Your task to perform on an android device: open app "DoorDash - Dasher" (install if not already installed) Image 0: 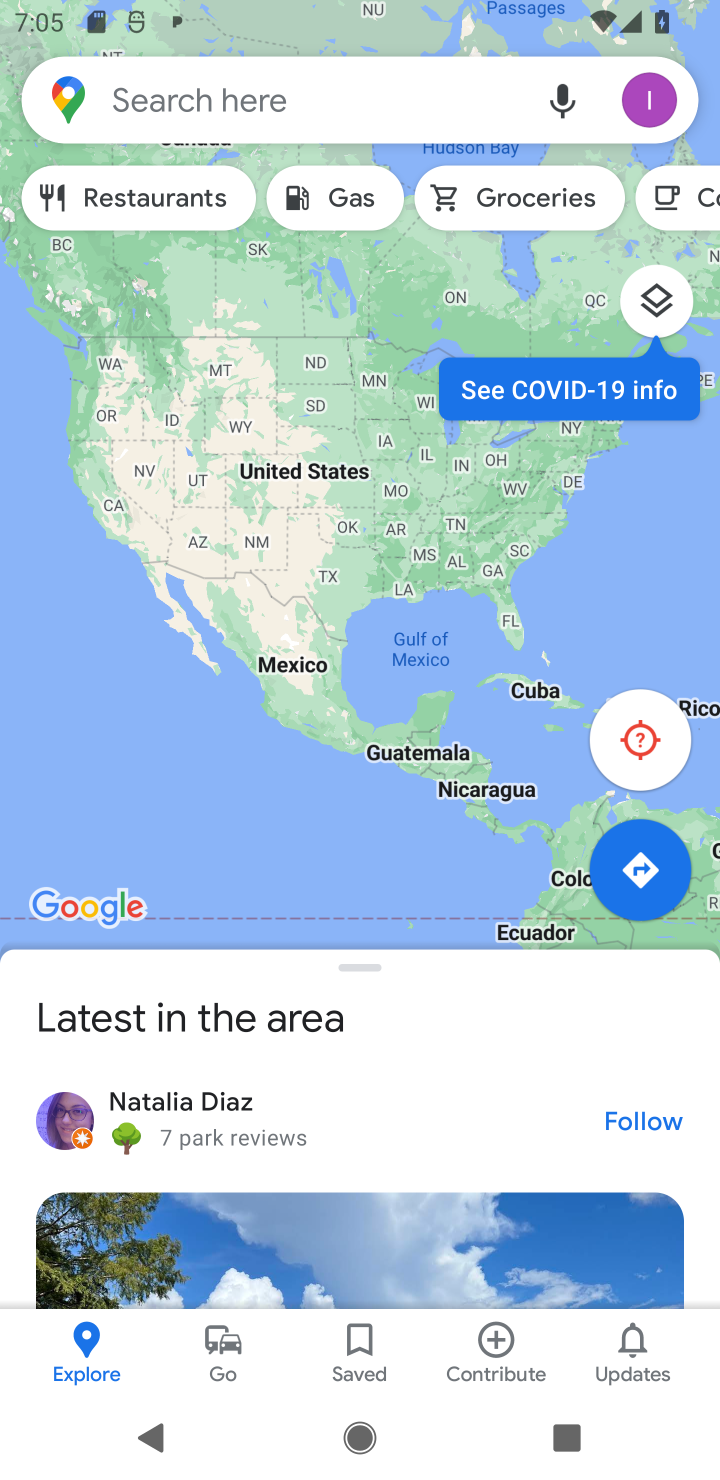
Step 0: press home button
Your task to perform on an android device: open app "DoorDash - Dasher" (install if not already installed) Image 1: 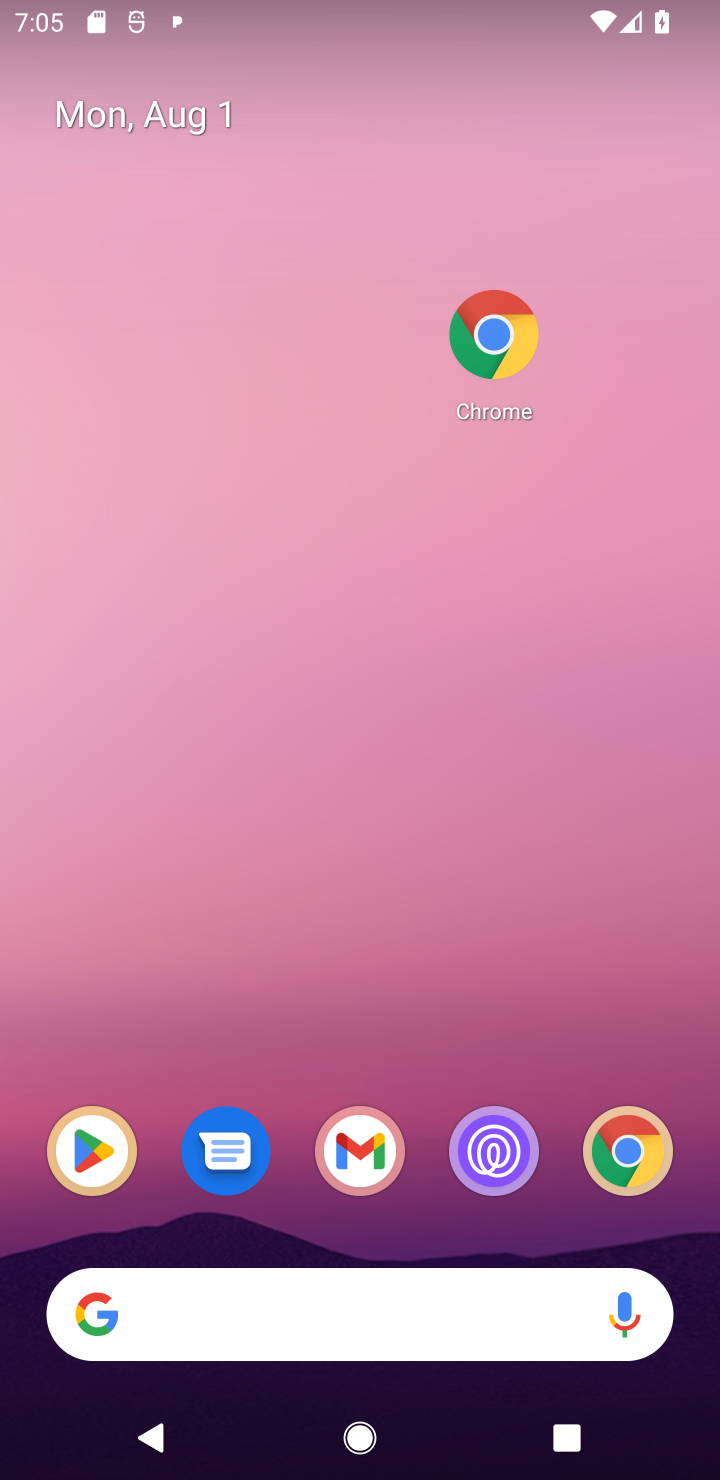
Step 1: click (79, 1167)
Your task to perform on an android device: open app "DoorDash - Dasher" (install if not already installed) Image 2: 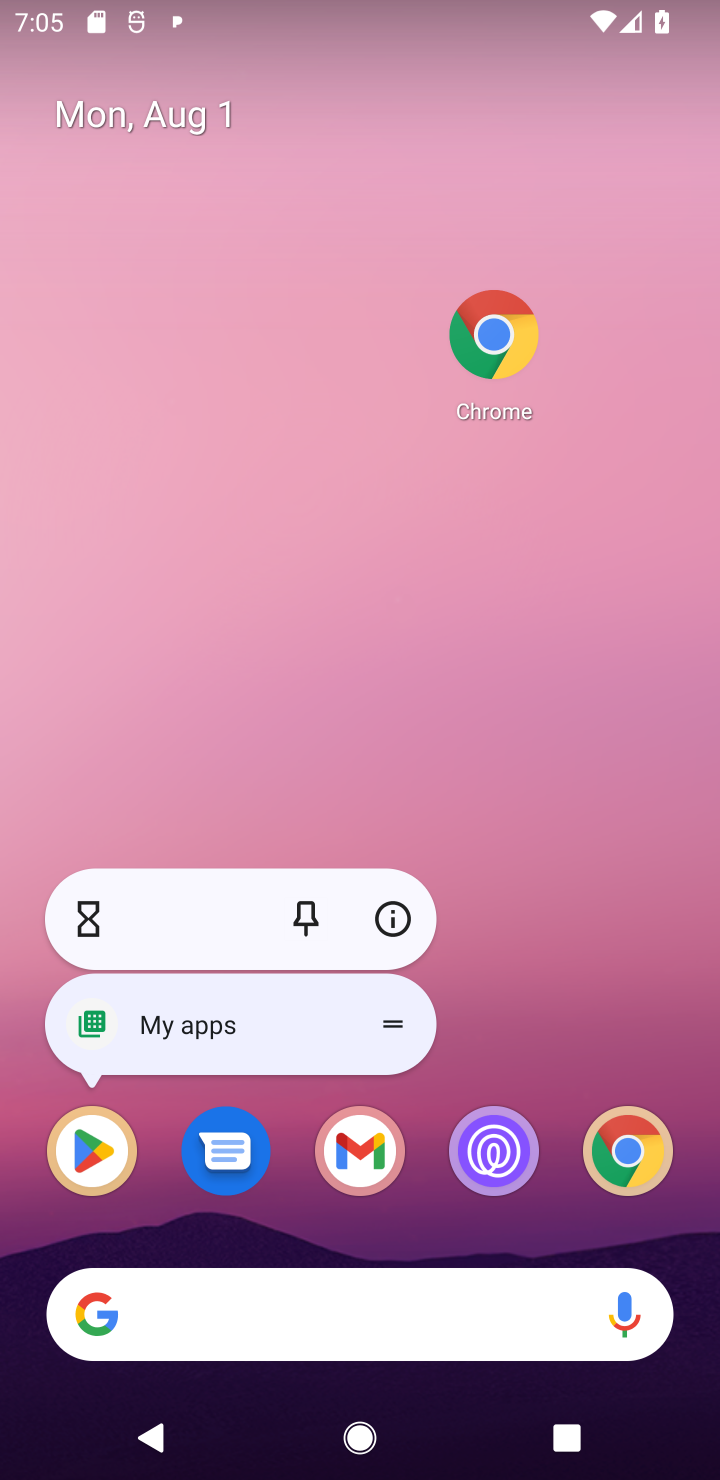
Step 2: click (79, 1167)
Your task to perform on an android device: open app "DoorDash - Dasher" (install if not already installed) Image 3: 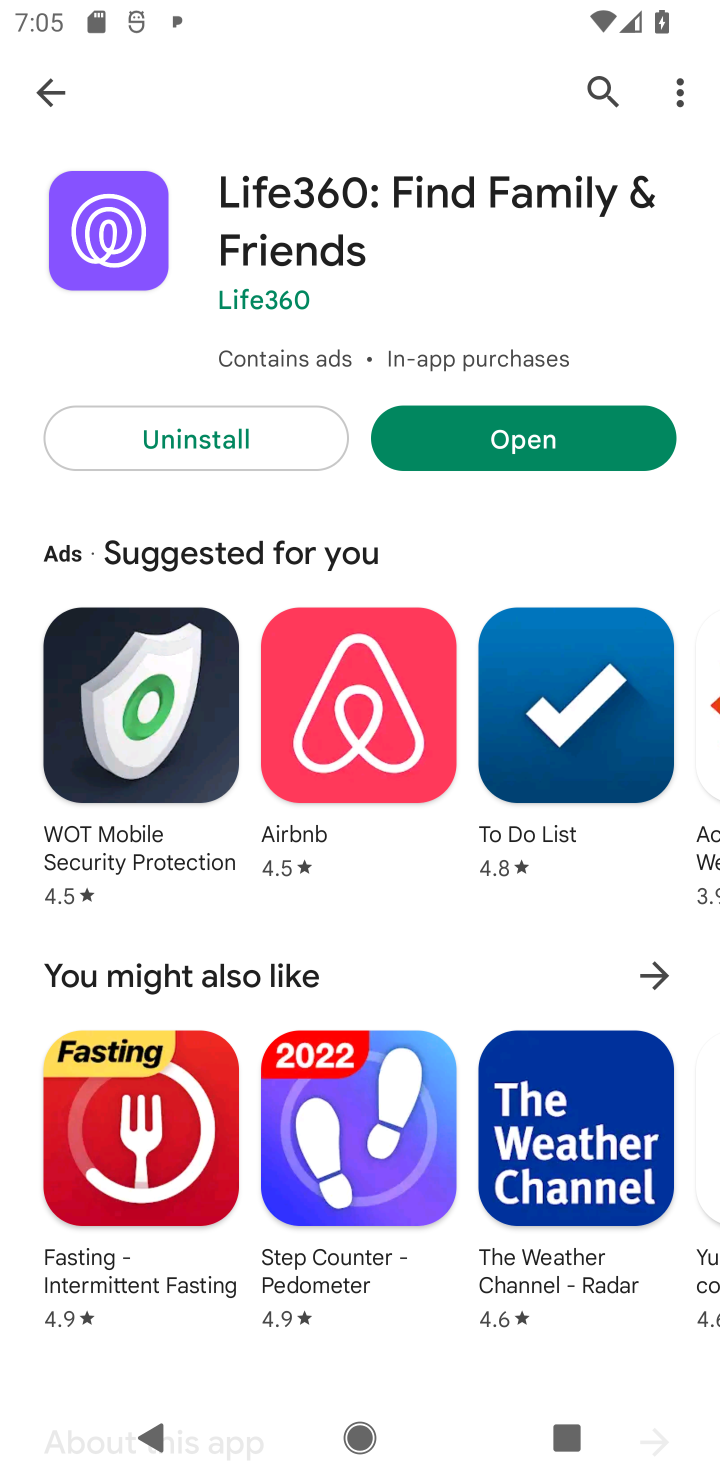
Step 3: click (599, 89)
Your task to perform on an android device: open app "DoorDash - Dasher" (install if not already installed) Image 4: 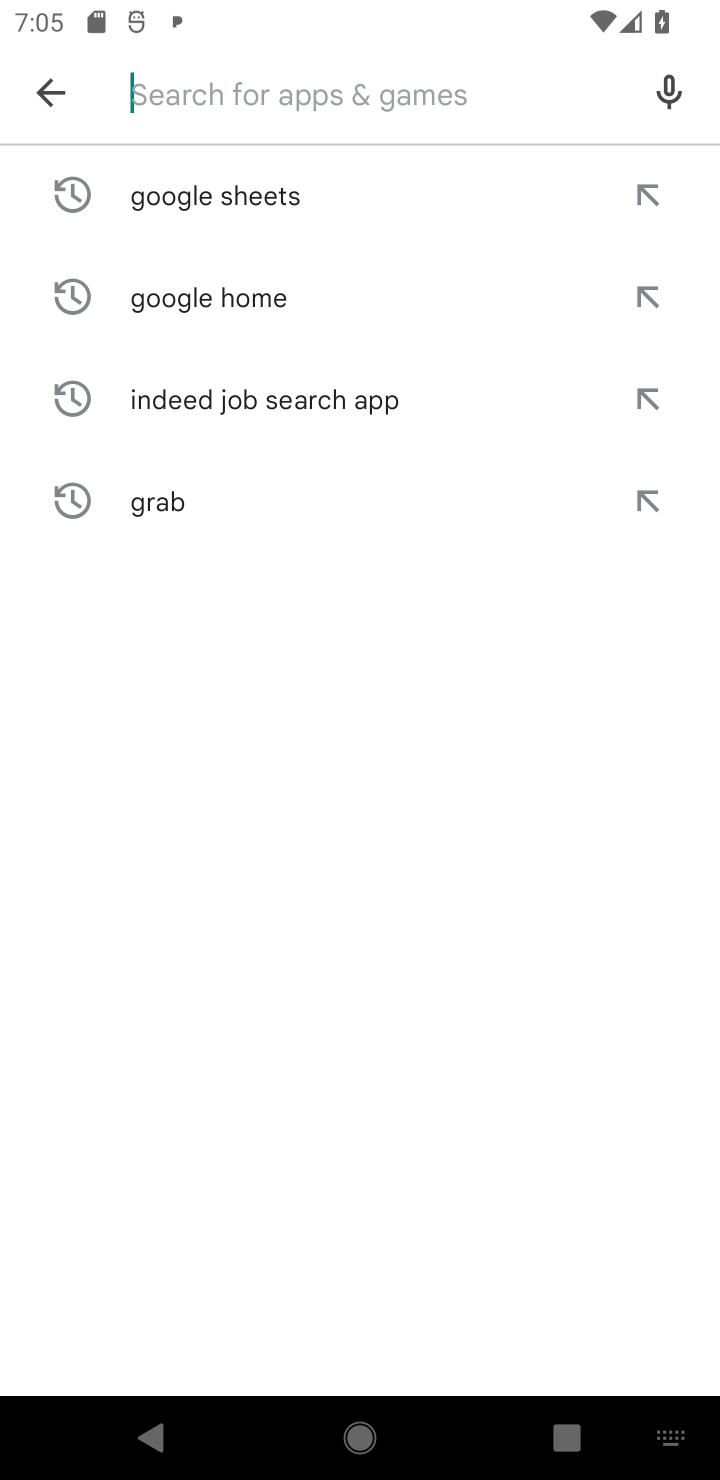
Step 4: type "DoorDash - Dasher"
Your task to perform on an android device: open app "DoorDash - Dasher" (install if not already installed) Image 5: 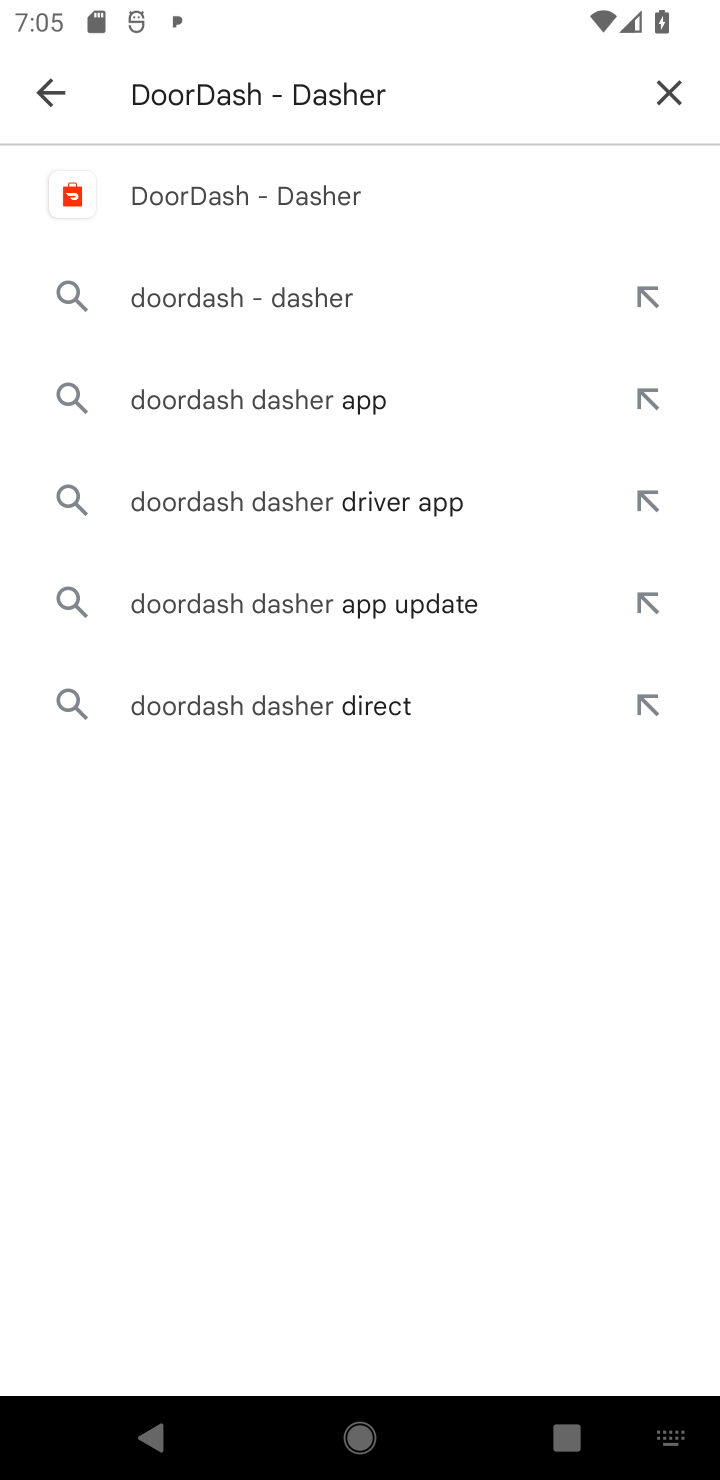
Step 5: click (267, 190)
Your task to perform on an android device: open app "DoorDash - Dasher" (install if not already installed) Image 6: 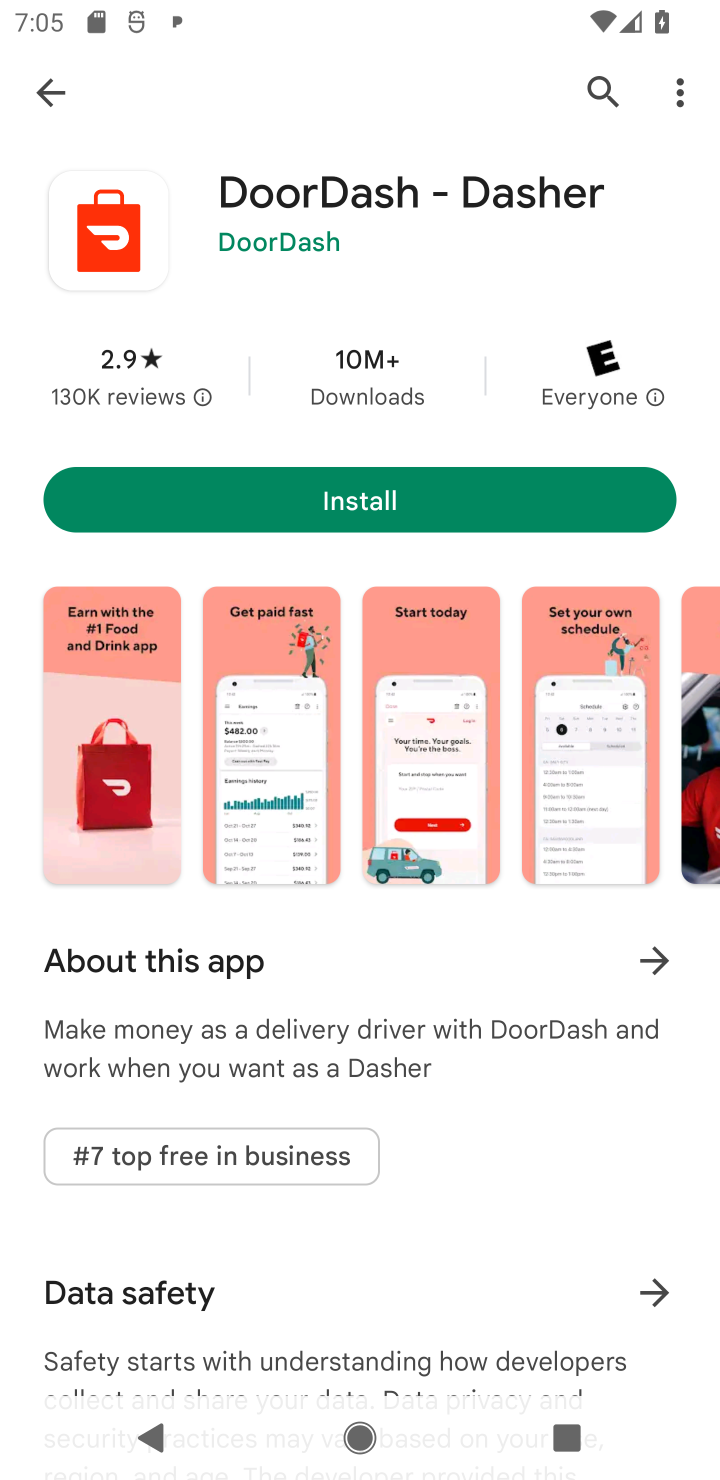
Step 6: click (347, 500)
Your task to perform on an android device: open app "DoorDash - Dasher" (install if not already installed) Image 7: 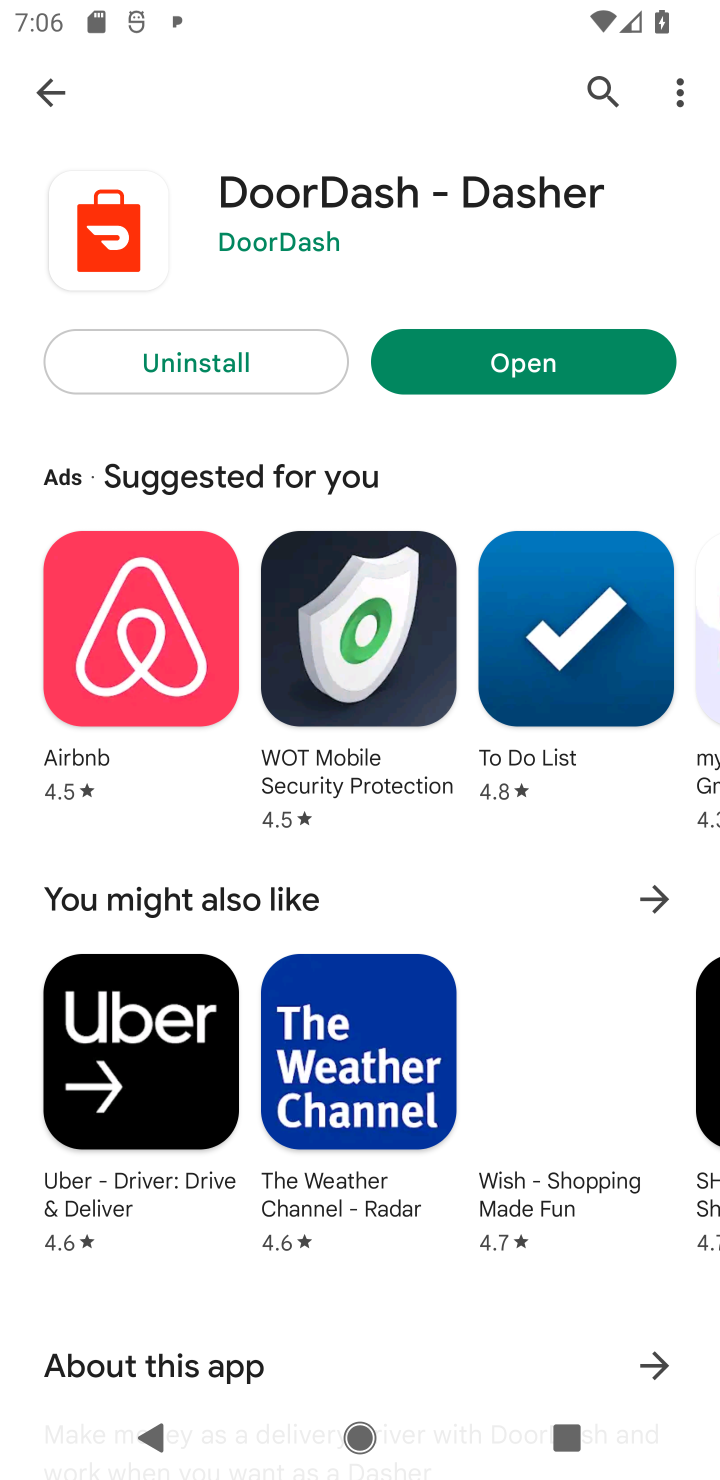
Step 7: click (519, 363)
Your task to perform on an android device: open app "DoorDash - Dasher" (install if not already installed) Image 8: 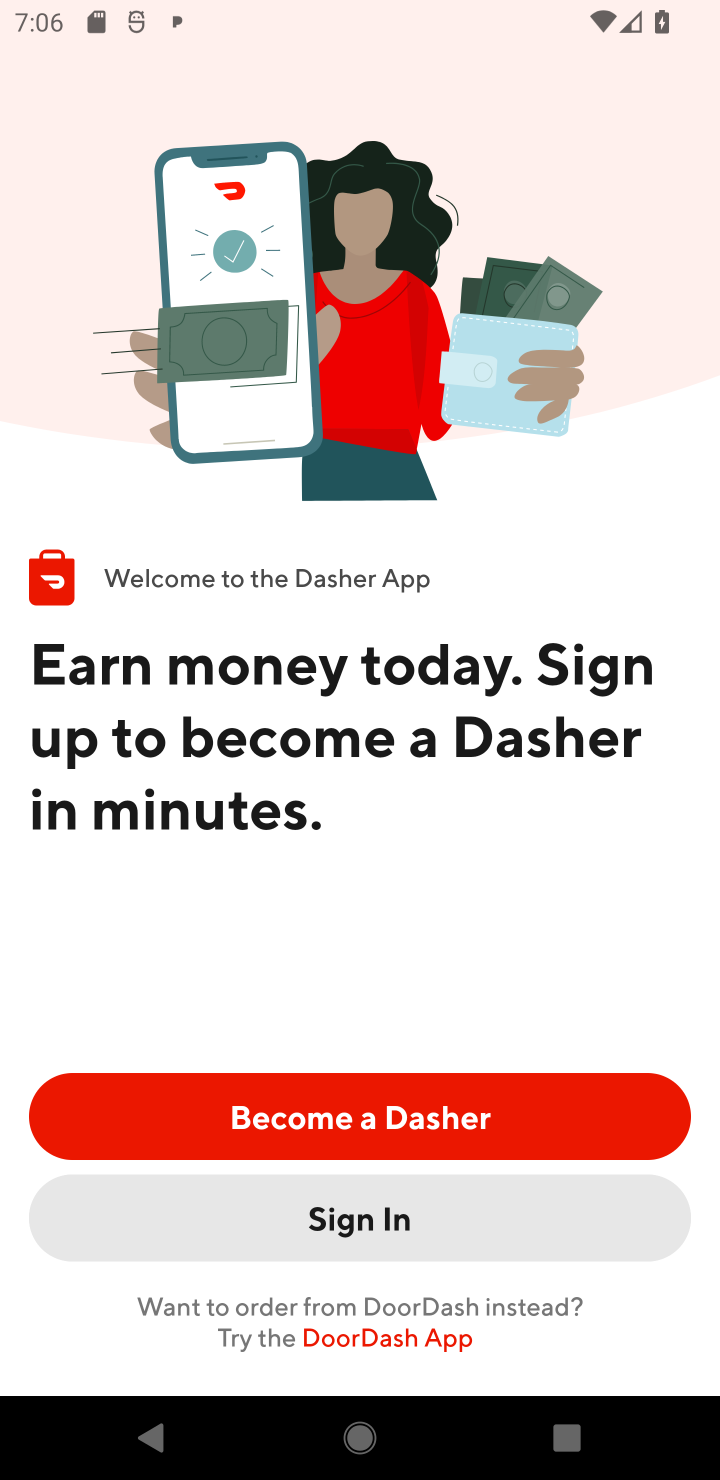
Step 8: task complete